Your task to perform on an android device: Go to Android settings Image 0: 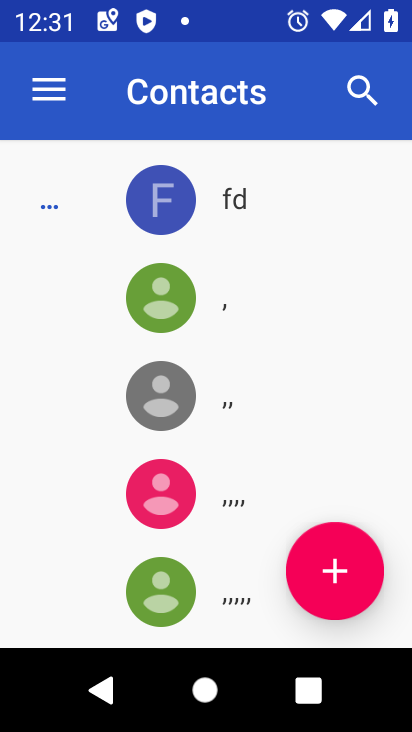
Step 0: press home button
Your task to perform on an android device: Go to Android settings Image 1: 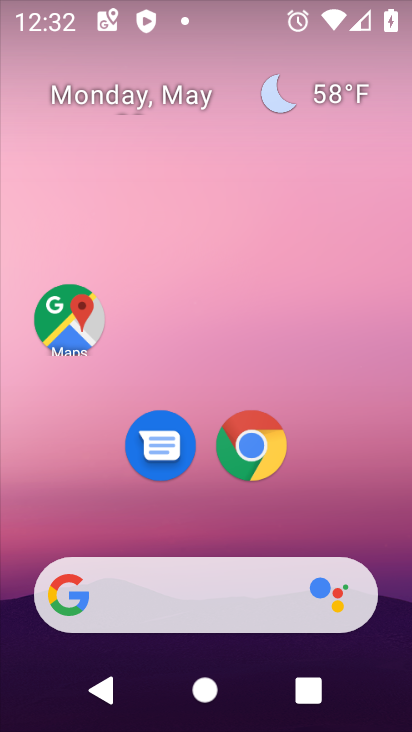
Step 1: drag from (208, 536) to (217, 54)
Your task to perform on an android device: Go to Android settings Image 2: 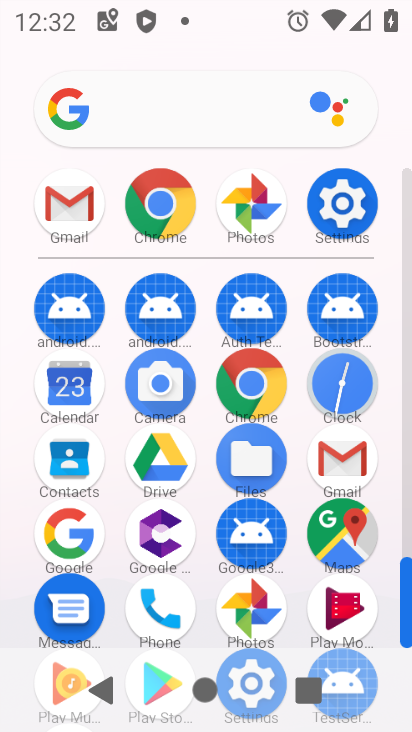
Step 2: click (338, 194)
Your task to perform on an android device: Go to Android settings Image 3: 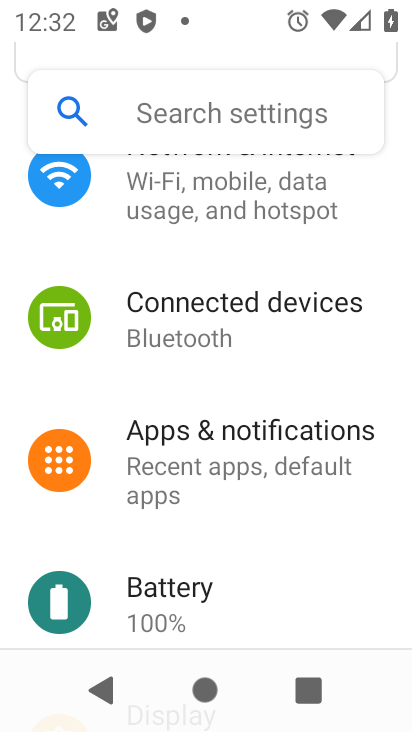
Step 3: drag from (239, 597) to (216, 124)
Your task to perform on an android device: Go to Android settings Image 4: 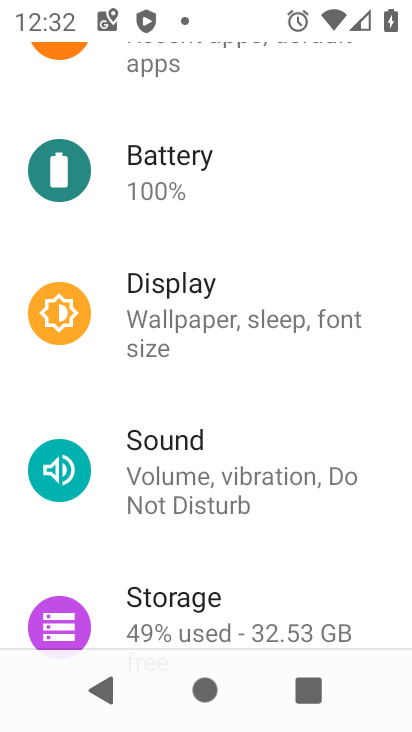
Step 4: drag from (256, 627) to (247, 70)
Your task to perform on an android device: Go to Android settings Image 5: 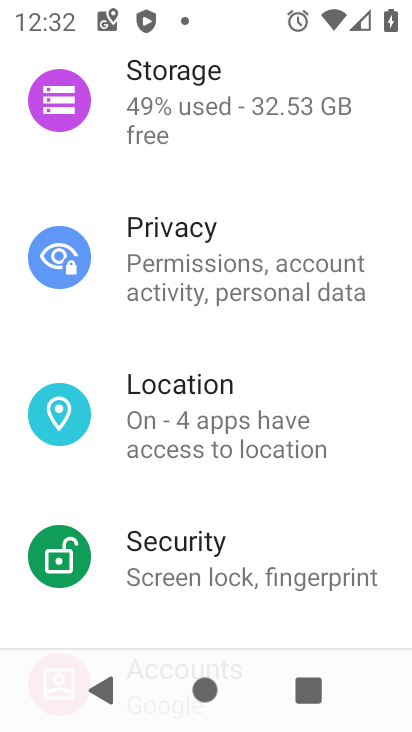
Step 5: drag from (245, 555) to (240, 128)
Your task to perform on an android device: Go to Android settings Image 6: 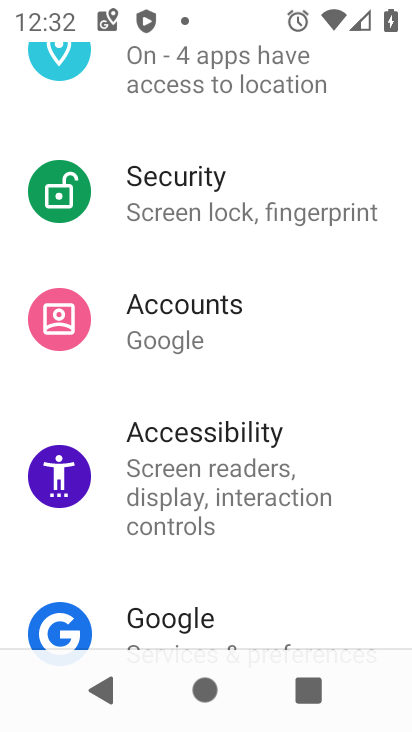
Step 6: drag from (248, 615) to (235, 144)
Your task to perform on an android device: Go to Android settings Image 7: 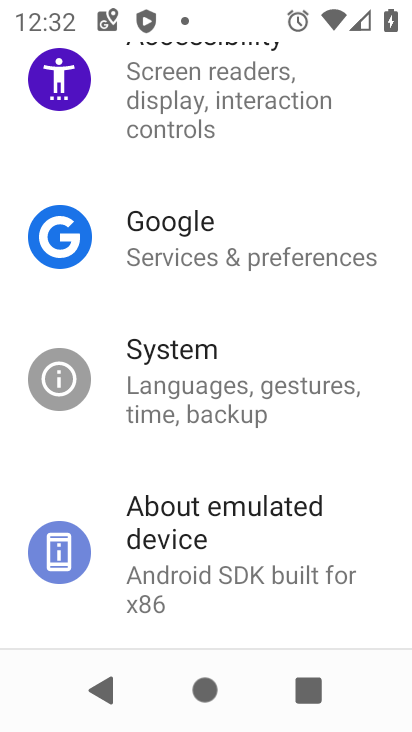
Step 7: click (250, 542)
Your task to perform on an android device: Go to Android settings Image 8: 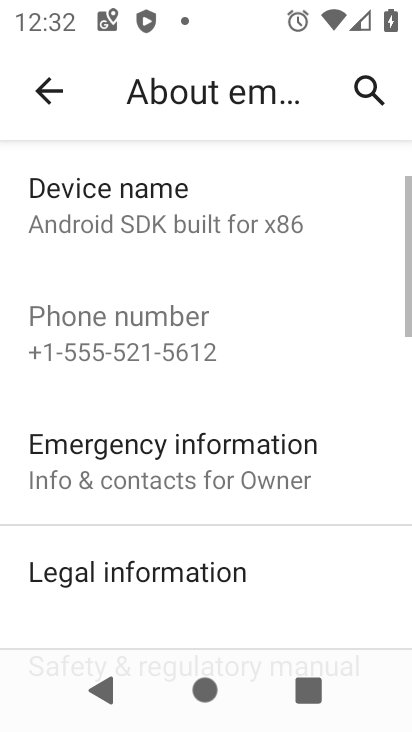
Step 8: drag from (211, 615) to (150, 264)
Your task to perform on an android device: Go to Android settings Image 9: 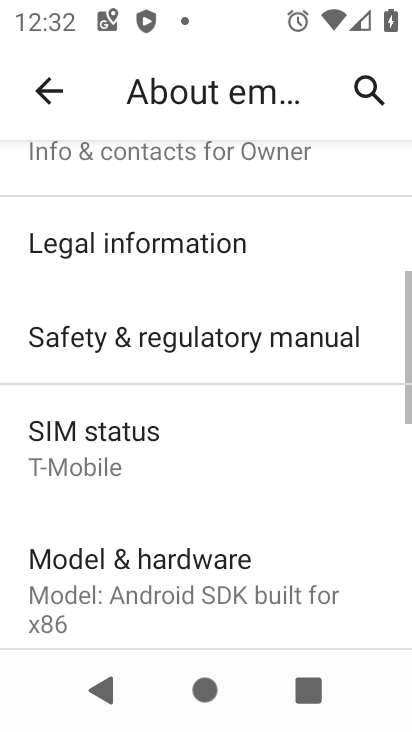
Step 9: drag from (215, 588) to (168, 225)
Your task to perform on an android device: Go to Android settings Image 10: 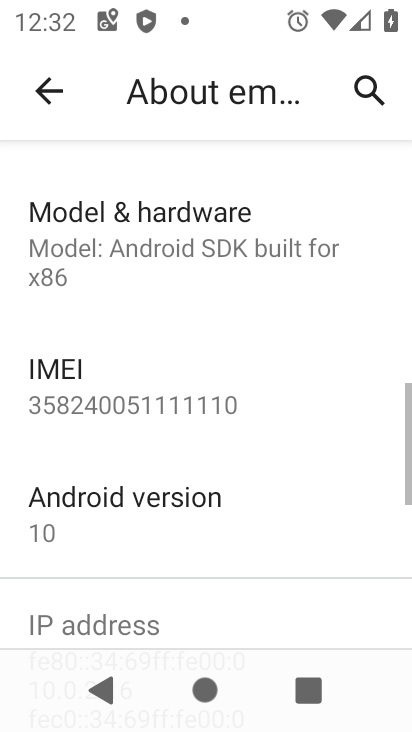
Step 10: click (163, 541)
Your task to perform on an android device: Go to Android settings Image 11: 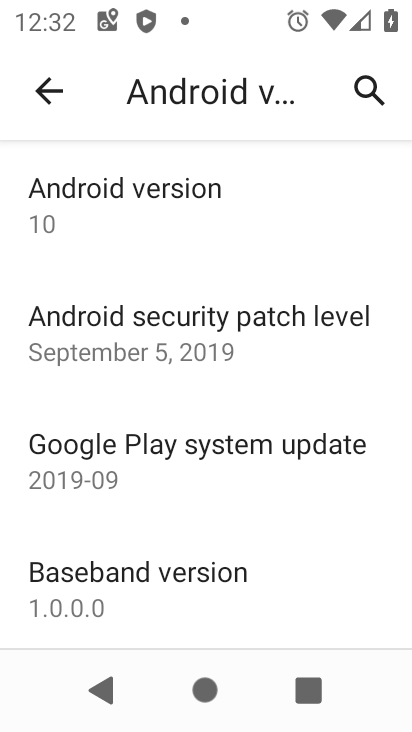
Step 11: task complete